Your task to perform on an android device: Open the Play Movies app and select the watchlist tab. Image 0: 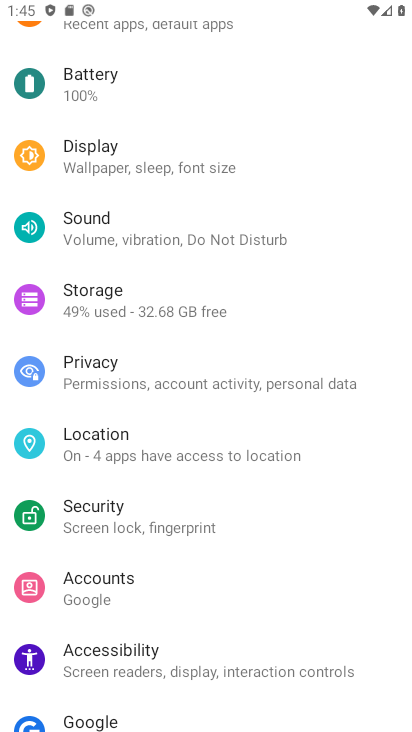
Step 0: press home button
Your task to perform on an android device: Open the Play Movies app and select the watchlist tab. Image 1: 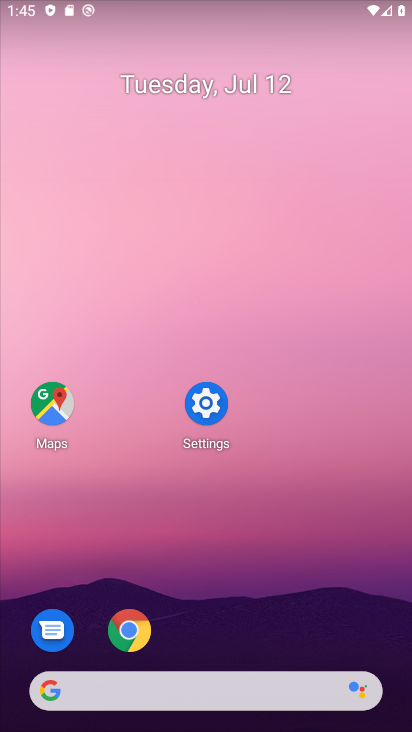
Step 1: drag from (382, 693) to (300, 70)
Your task to perform on an android device: Open the Play Movies app and select the watchlist tab. Image 2: 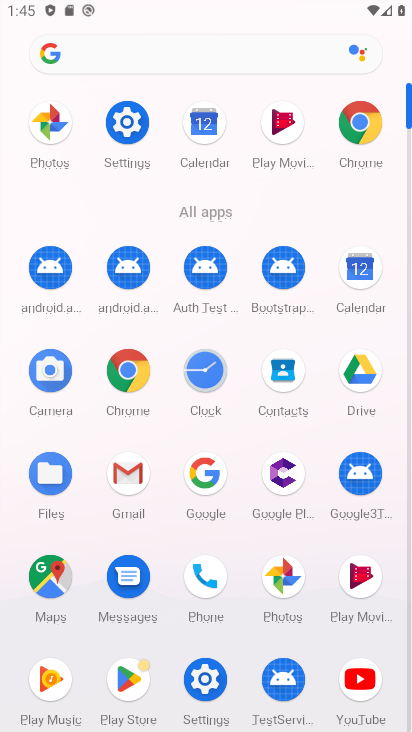
Step 2: click (357, 592)
Your task to perform on an android device: Open the Play Movies app and select the watchlist tab. Image 3: 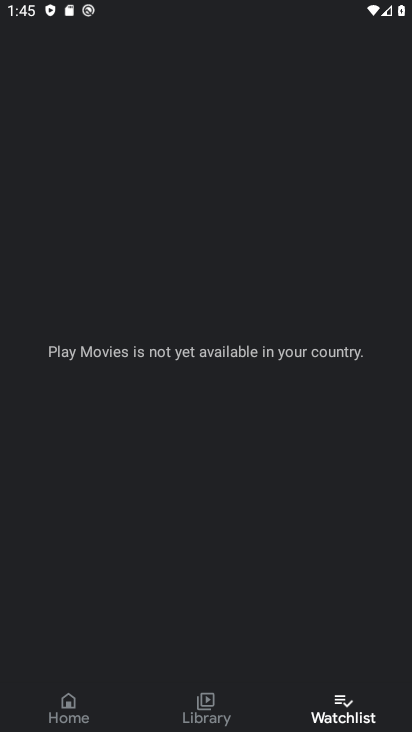
Step 3: click (332, 710)
Your task to perform on an android device: Open the Play Movies app and select the watchlist tab. Image 4: 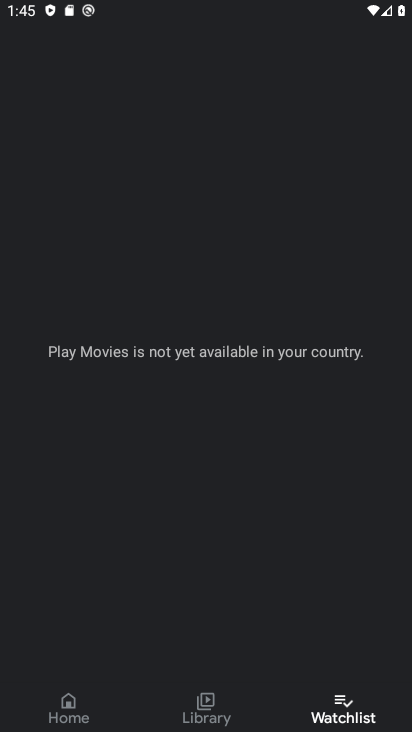
Step 4: task complete